Your task to perform on an android device: Open Chrome and go to settings Image 0: 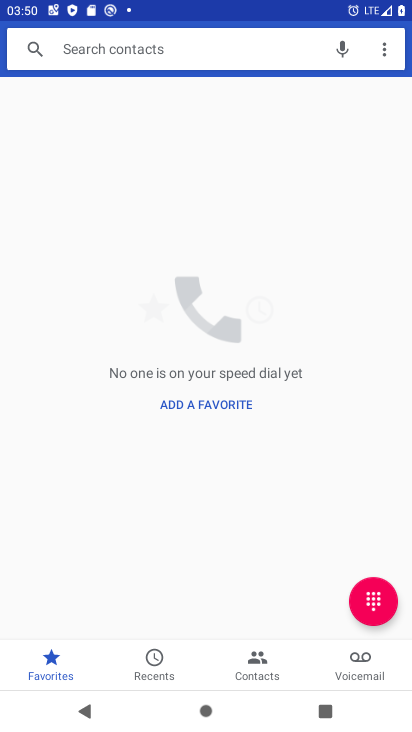
Step 0: press home button
Your task to perform on an android device: Open Chrome and go to settings Image 1: 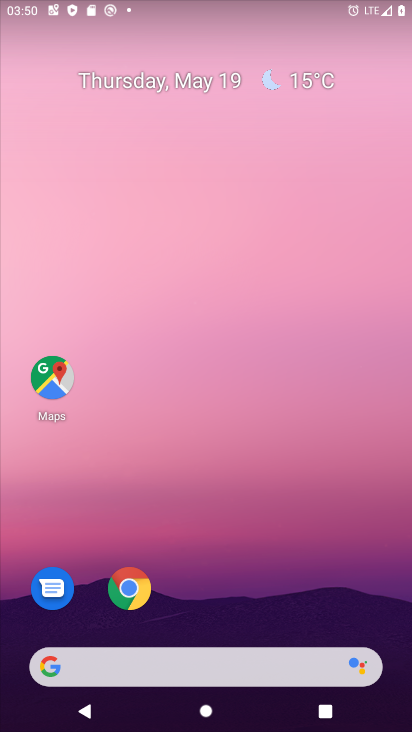
Step 1: click (127, 584)
Your task to perform on an android device: Open Chrome and go to settings Image 2: 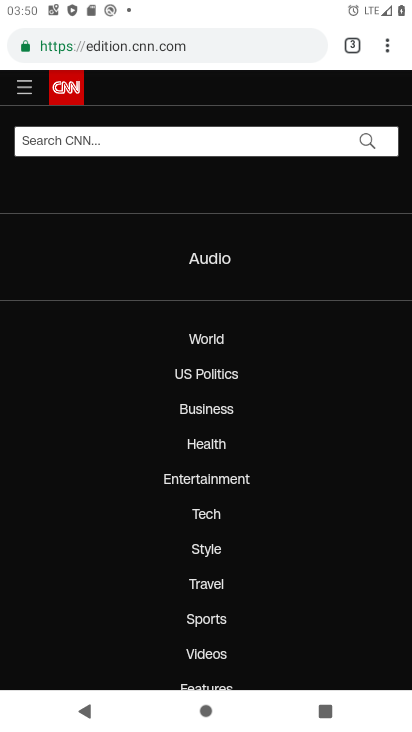
Step 2: click (387, 41)
Your task to perform on an android device: Open Chrome and go to settings Image 3: 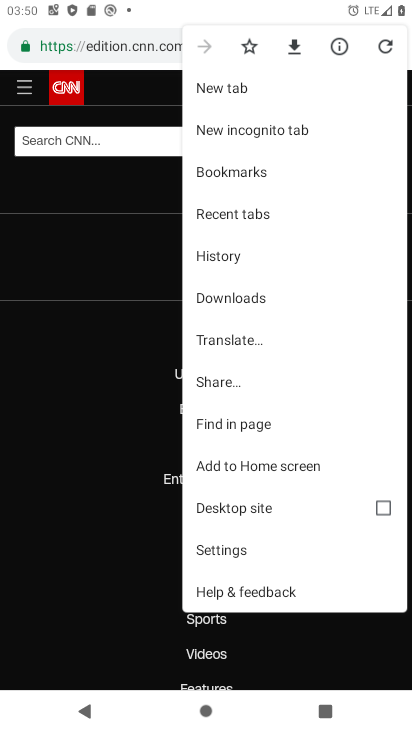
Step 3: click (250, 542)
Your task to perform on an android device: Open Chrome and go to settings Image 4: 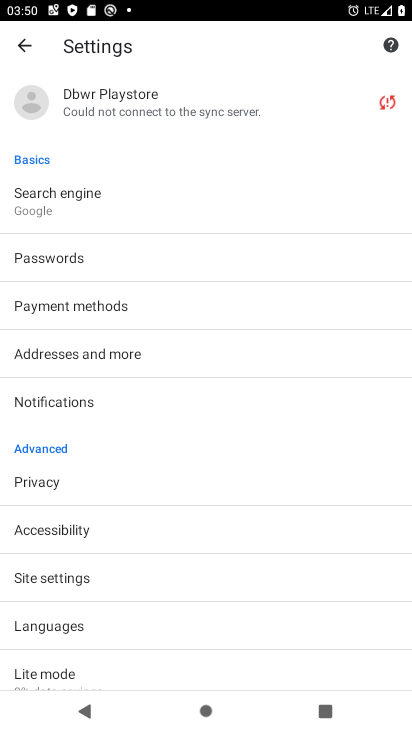
Step 4: task complete